Your task to perform on an android device: Open Youtube and go to "Your channel" Image 0: 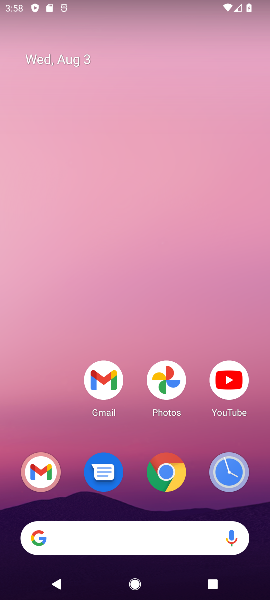
Step 0: drag from (206, 489) to (94, 90)
Your task to perform on an android device: Open Youtube and go to "Your channel" Image 1: 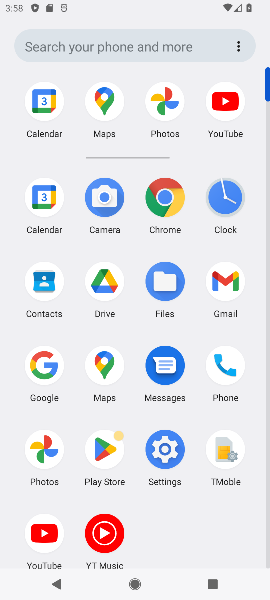
Step 1: click (49, 530)
Your task to perform on an android device: Open Youtube and go to "Your channel" Image 2: 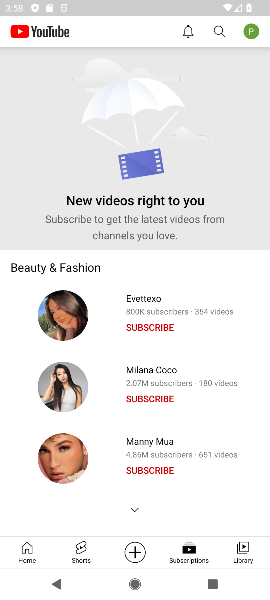
Step 2: click (252, 28)
Your task to perform on an android device: Open Youtube and go to "Your channel" Image 3: 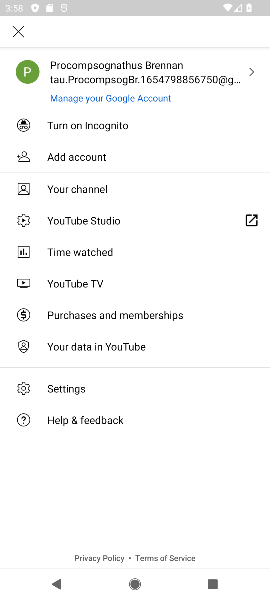
Step 3: click (92, 196)
Your task to perform on an android device: Open Youtube and go to "Your channel" Image 4: 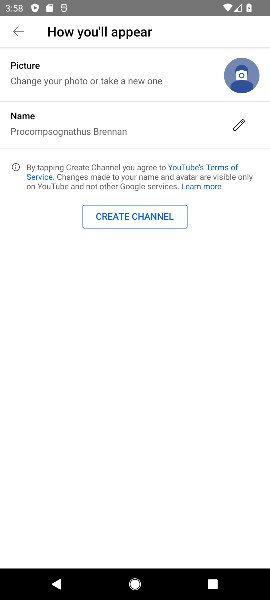
Step 4: task complete